Your task to perform on an android device: Open the phone app and click the voicemail tab. Image 0: 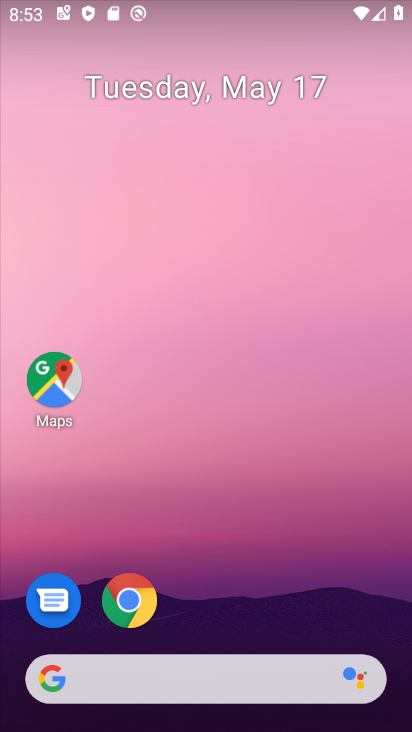
Step 0: drag from (258, 597) to (253, 226)
Your task to perform on an android device: Open the phone app and click the voicemail tab. Image 1: 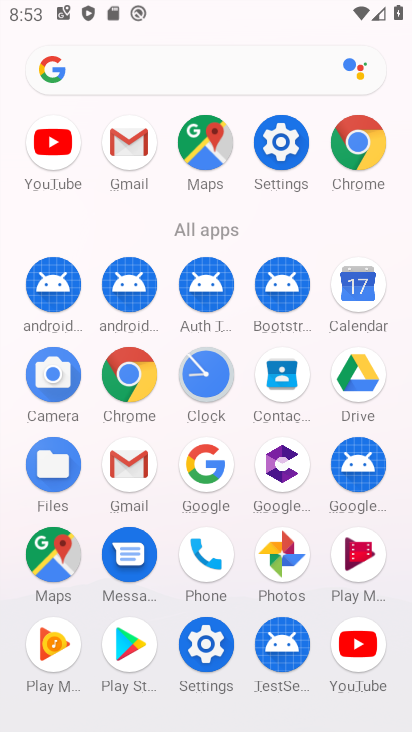
Step 1: click (216, 549)
Your task to perform on an android device: Open the phone app and click the voicemail tab. Image 2: 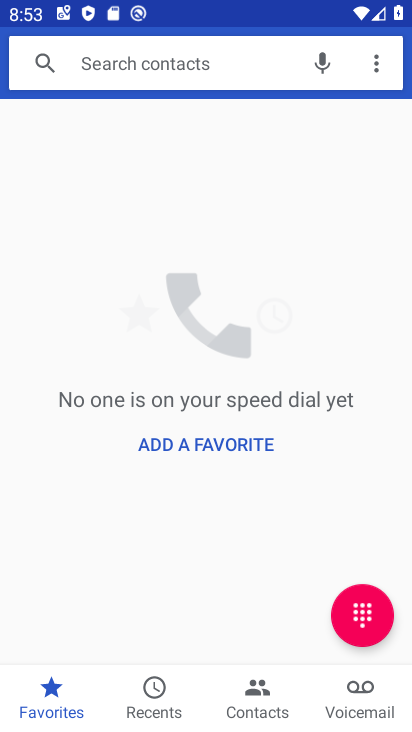
Step 2: click (364, 688)
Your task to perform on an android device: Open the phone app and click the voicemail tab. Image 3: 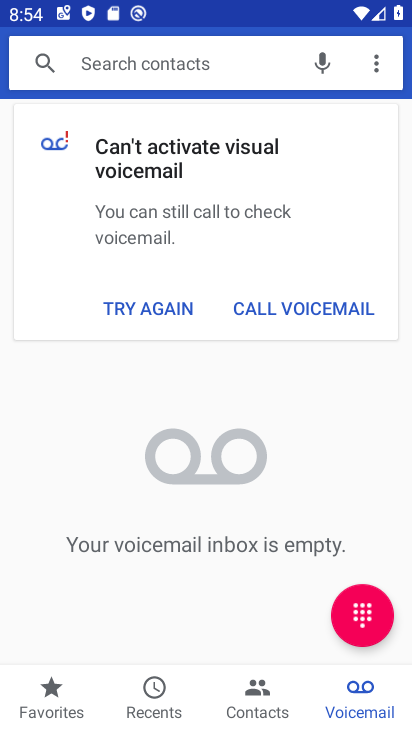
Step 3: task complete